Your task to perform on an android device: add a label to a message in the gmail app Image 0: 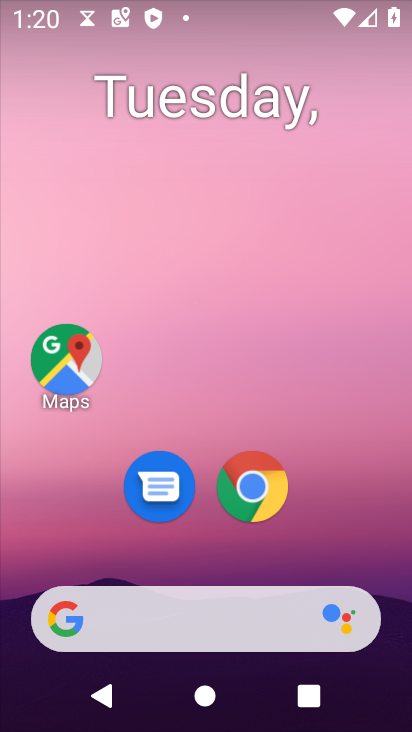
Step 0: drag from (350, 545) to (307, 141)
Your task to perform on an android device: add a label to a message in the gmail app Image 1: 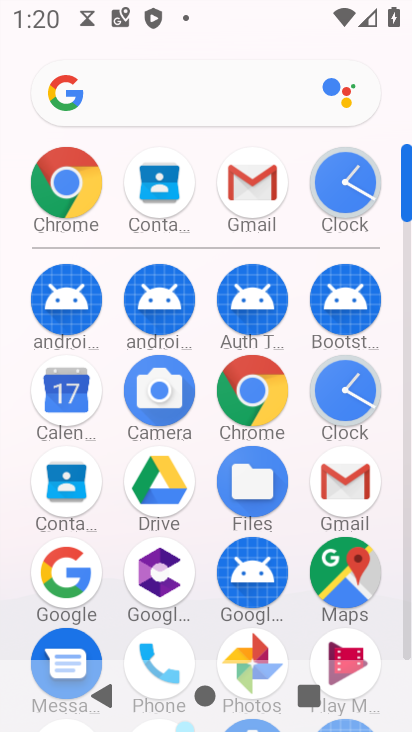
Step 1: click (251, 176)
Your task to perform on an android device: add a label to a message in the gmail app Image 2: 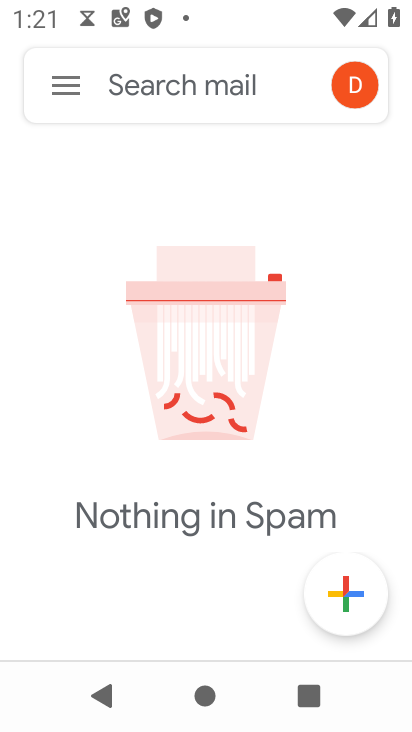
Step 2: task complete